Your task to perform on an android device: set the stopwatch Image 0: 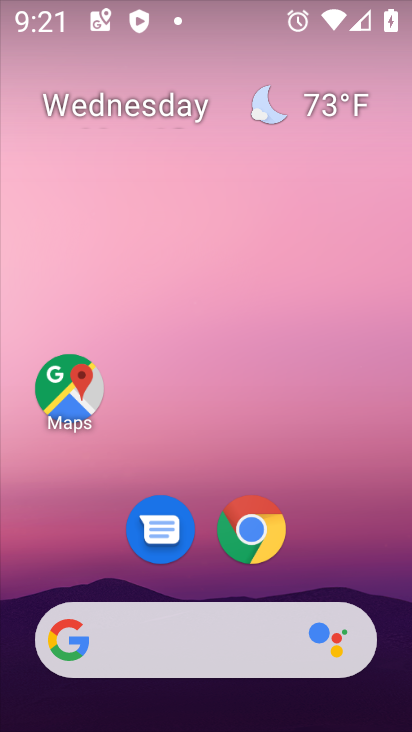
Step 0: drag from (380, 545) to (385, 308)
Your task to perform on an android device: set the stopwatch Image 1: 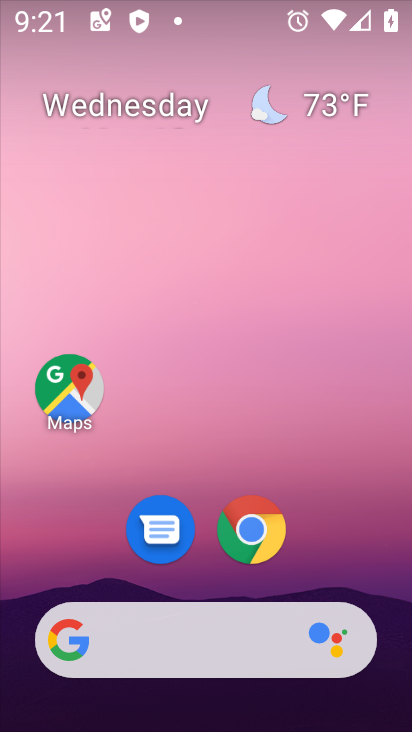
Step 1: drag from (371, 541) to (357, 195)
Your task to perform on an android device: set the stopwatch Image 2: 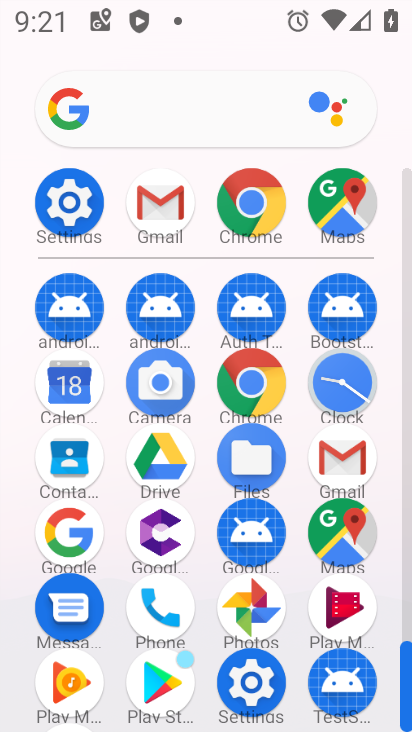
Step 2: click (338, 396)
Your task to perform on an android device: set the stopwatch Image 3: 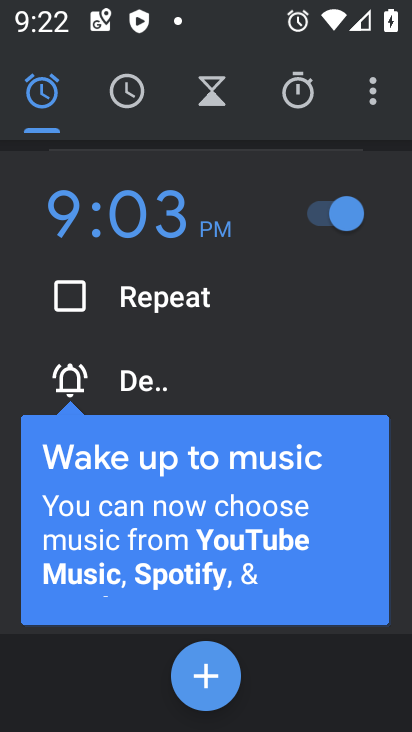
Step 3: click (291, 112)
Your task to perform on an android device: set the stopwatch Image 4: 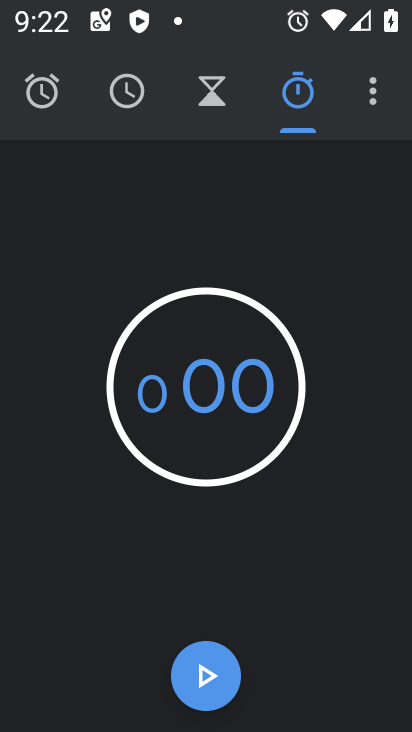
Step 4: click (198, 676)
Your task to perform on an android device: set the stopwatch Image 5: 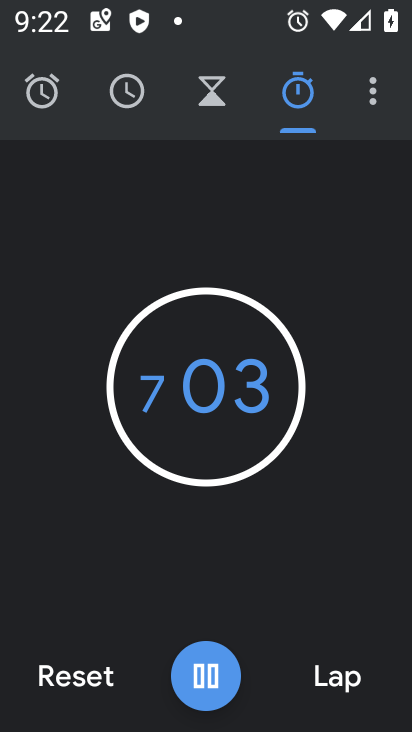
Step 5: task complete